Your task to perform on an android device: Open sound settings Image 0: 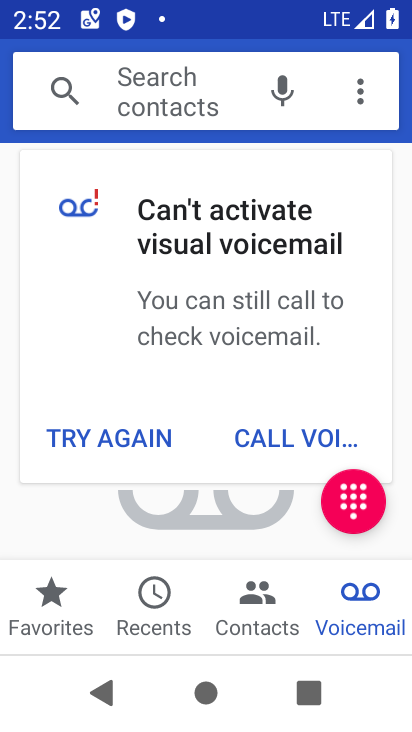
Step 0: press home button
Your task to perform on an android device: Open sound settings Image 1: 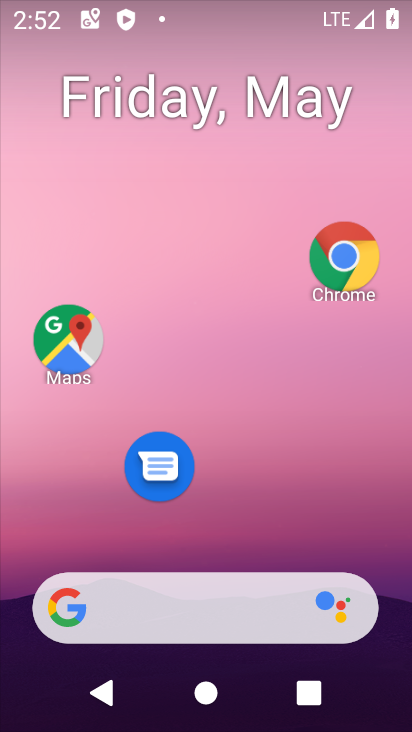
Step 1: drag from (277, 523) to (224, 63)
Your task to perform on an android device: Open sound settings Image 2: 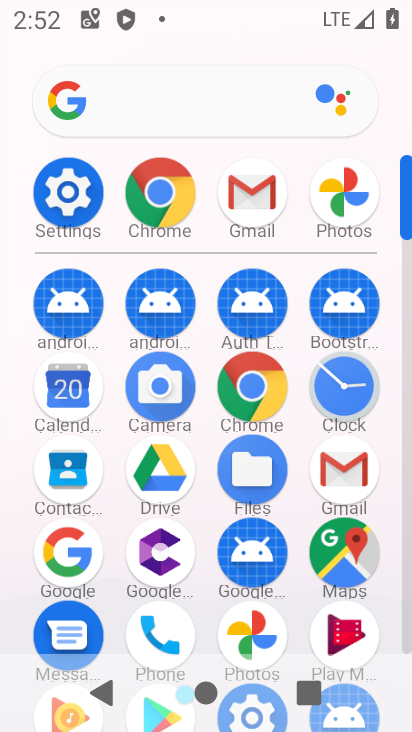
Step 2: click (59, 197)
Your task to perform on an android device: Open sound settings Image 3: 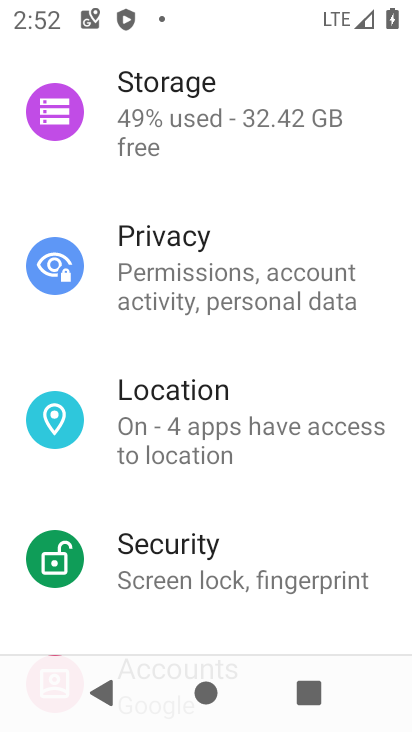
Step 3: drag from (235, 430) to (241, 524)
Your task to perform on an android device: Open sound settings Image 4: 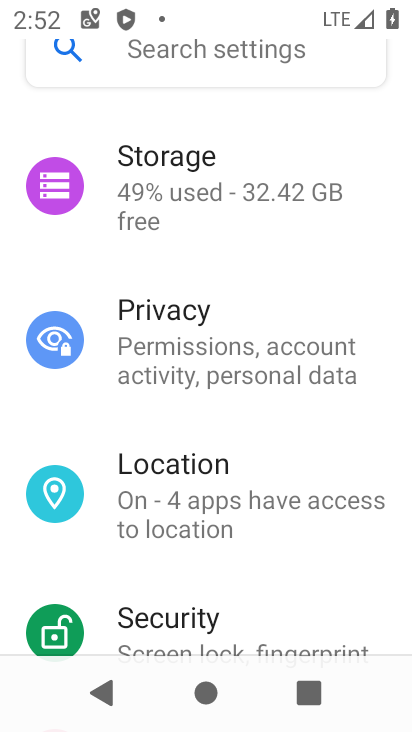
Step 4: drag from (267, 153) to (226, 607)
Your task to perform on an android device: Open sound settings Image 5: 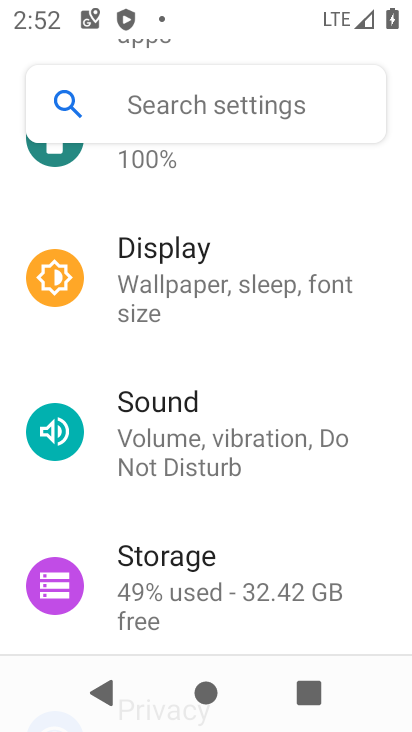
Step 5: click (178, 409)
Your task to perform on an android device: Open sound settings Image 6: 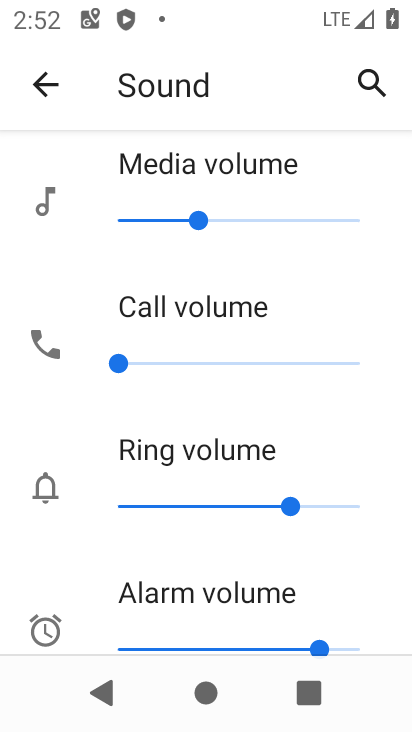
Step 6: task complete